Your task to perform on an android device: change the upload size in google photos Image 0: 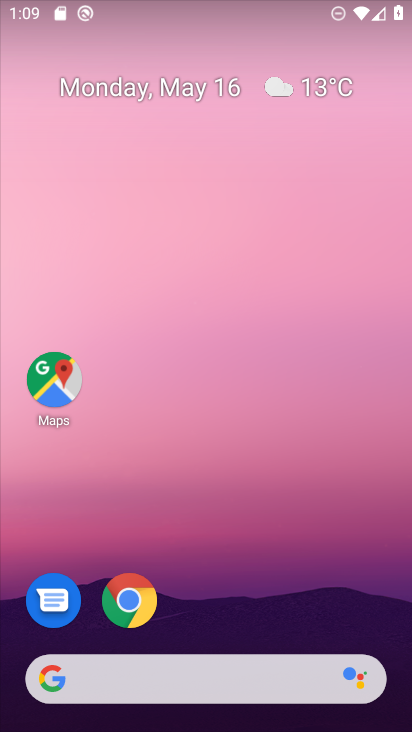
Step 0: press home button
Your task to perform on an android device: change the upload size in google photos Image 1: 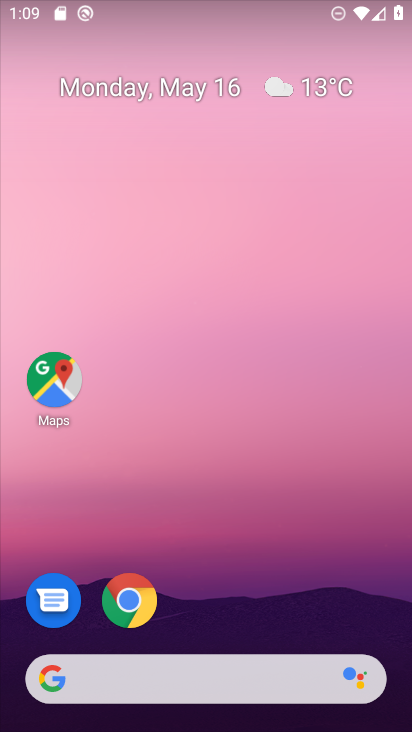
Step 1: drag from (216, 633) to (238, 58)
Your task to perform on an android device: change the upload size in google photos Image 2: 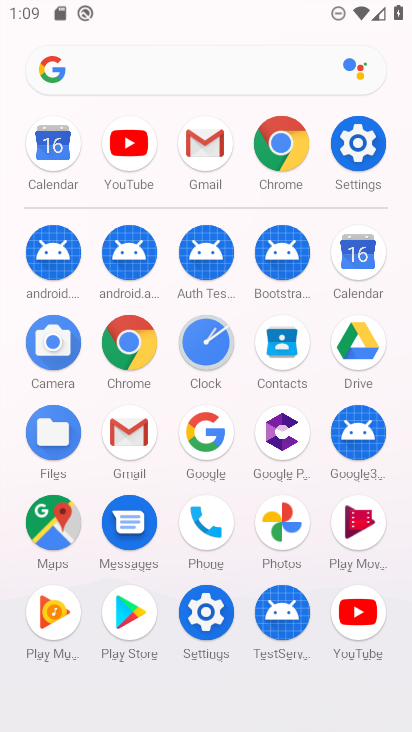
Step 2: click (278, 518)
Your task to perform on an android device: change the upload size in google photos Image 3: 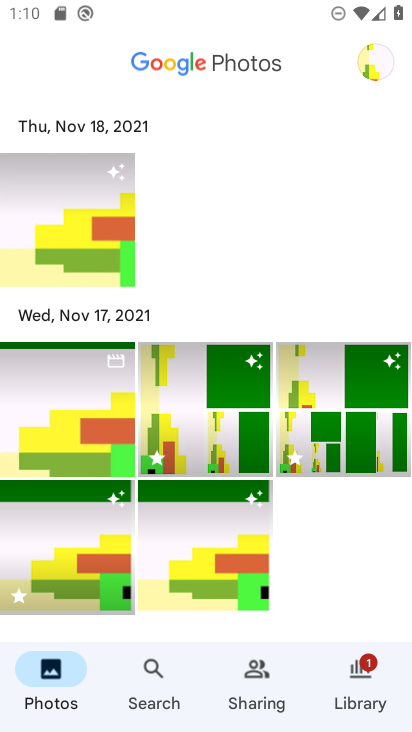
Step 3: click (377, 53)
Your task to perform on an android device: change the upload size in google photos Image 4: 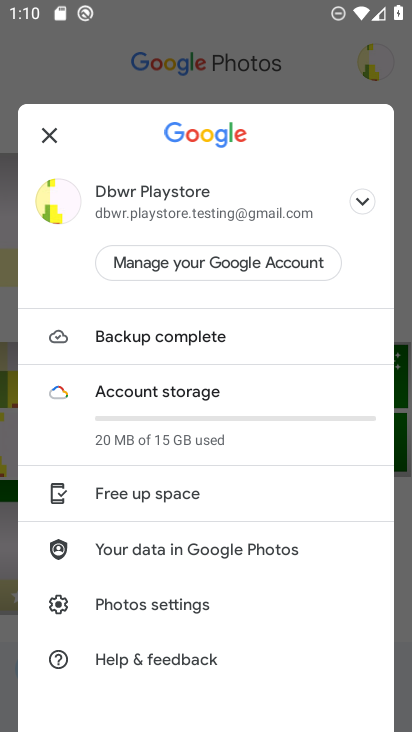
Step 4: click (215, 601)
Your task to perform on an android device: change the upload size in google photos Image 5: 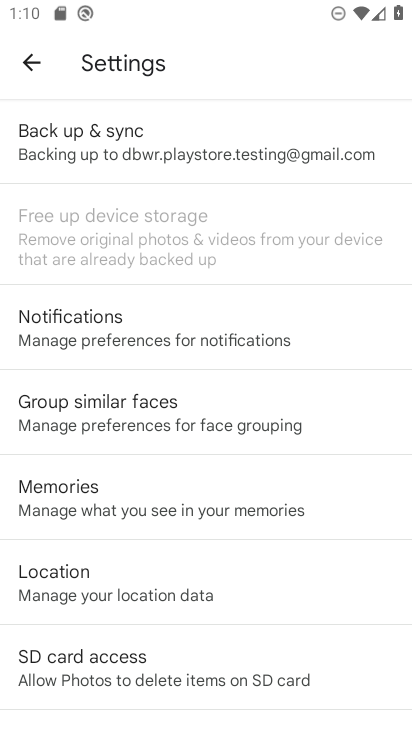
Step 5: click (154, 138)
Your task to perform on an android device: change the upload size in google photos Image 6: 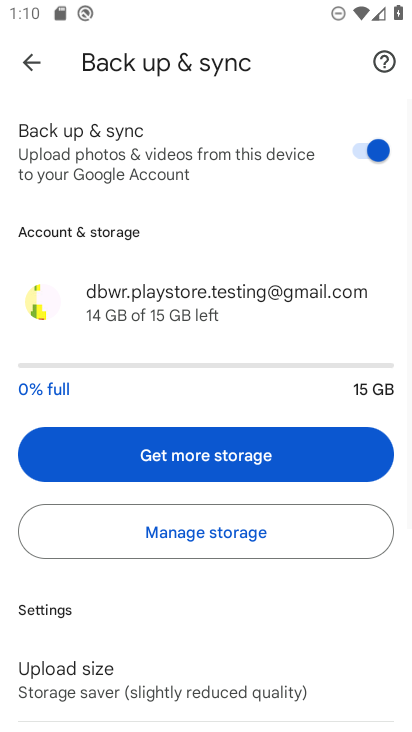
Step 6: drag from (188, 635) to (193, 288)
Your task to perform on an android device: change the upload size in google photos Image 7: 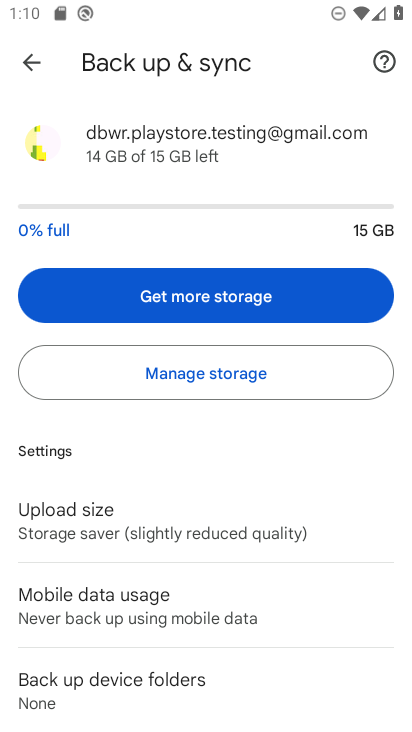
Step 7: click (149, 515)
Your task to perform on an android device: change the upload size in google photos Image 8: 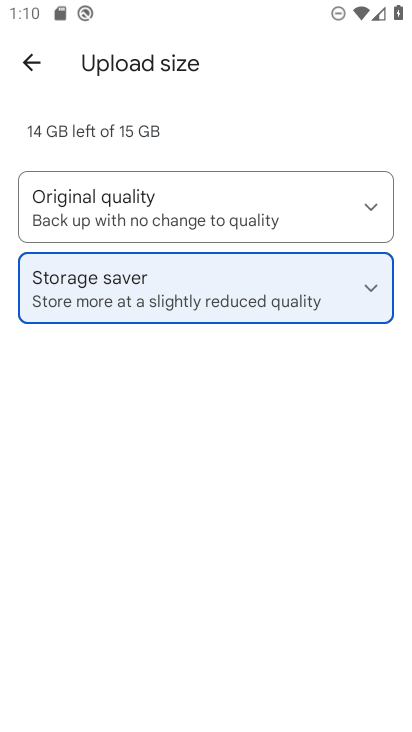
Step 8: click (125, 195)
Your task to perform on an android device: change the upload size in google photos Image 9: 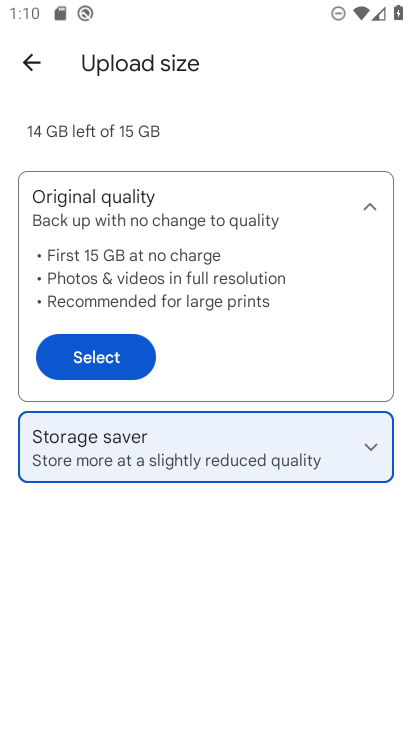
Step 9: click (98, 364)
Your task to perform on an android device: change the upload size in google photos Image 10: 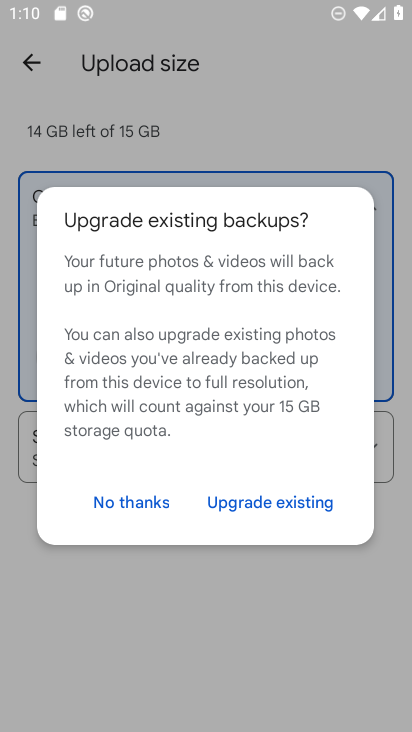
Step 10: click (142, 508)
Your task to perform on an android device: change the upload size in google photos Image 11: 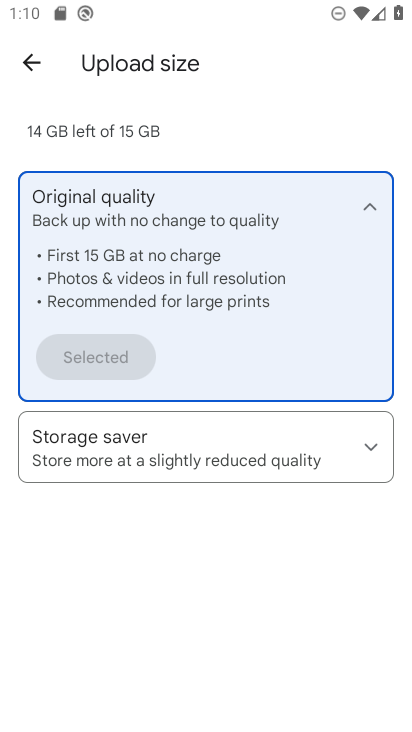
Step 11: task complete